Your task to perform on an android device: Check the news Image 0: 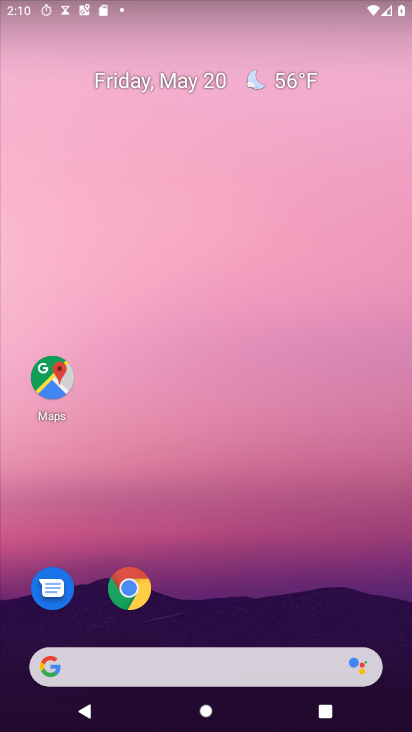
Step 0: click (121, 661)
Your task to perform on an android device: Check the news Image 1: 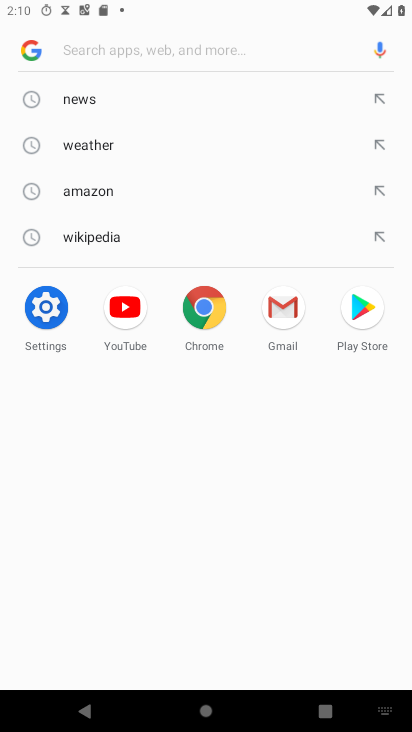
Step 1: click (107, 107)
Your task to perform on an android device: Check the news Image 2: 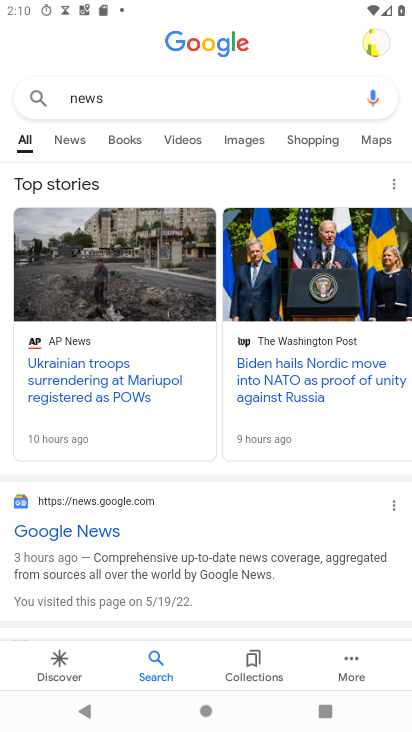
Step 2: task complete